Your task to perform on an android device: turn on priority inbox in the gmail app Image 0: 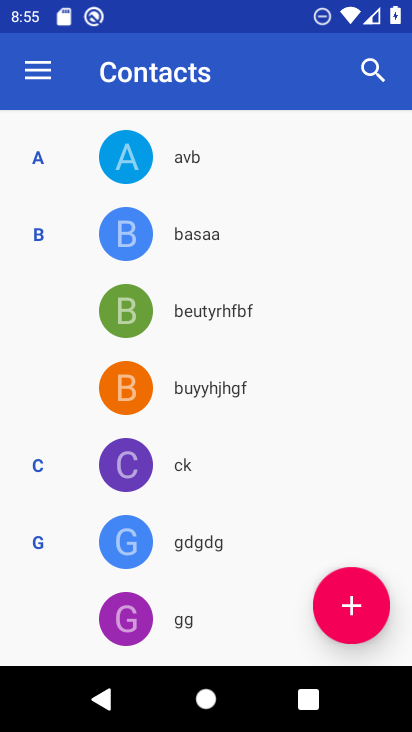
Step 0: press back button
Your task to perform on an android device: turn on priority inbox in the gmail app Image 1: 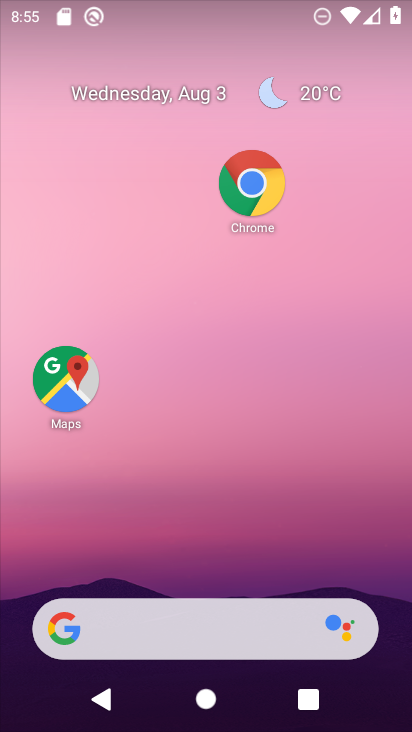
Step 1: drag from (185, 551) to (233, 178)
Your task to perform on an android device: turn on priority inbox in the gmail app Image 2: 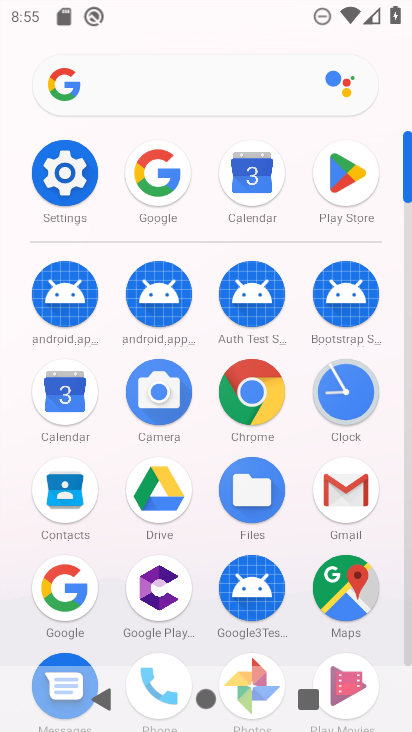
Step 2: click (339, 492)
Your task to perform on an android device: turn on priority inbox in the gmail app Image 3: 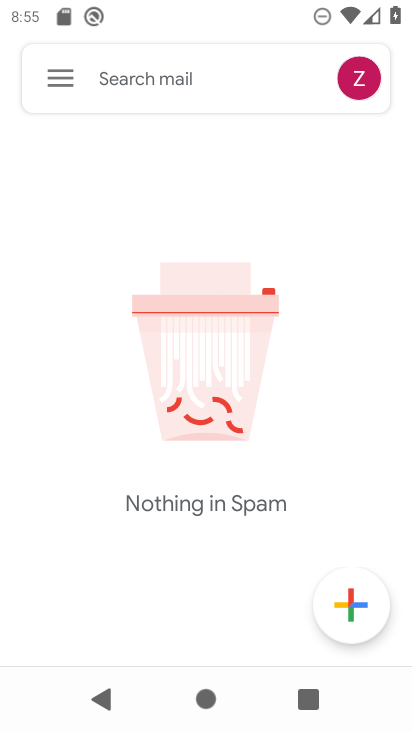
Step 3: click (60, 77)
Your task to perform on an android device: turn on priority inbox in the gmail app Image 4: 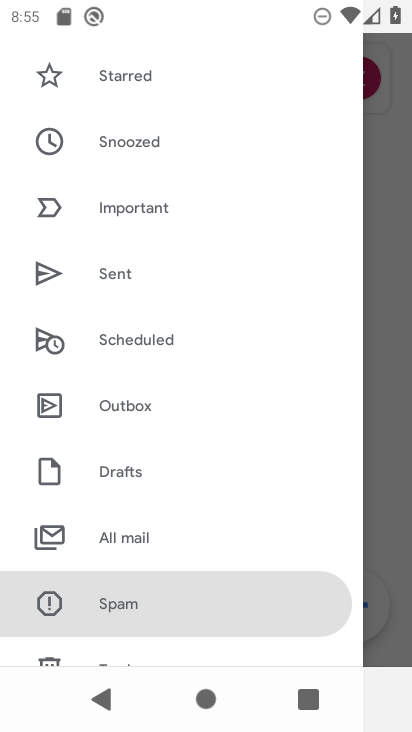
Step 4: drag from (151, 186) to (153, 501)
Your task to perform on an android device: turn on priority inbox in the gmail app Image 5: 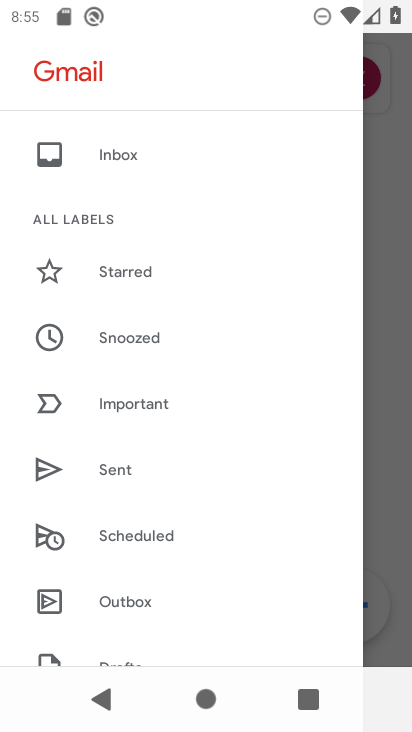
Step 5: drag from (144, 531) to (161, 30)
Your task to perform on an android device: turn on priority inbox in the gmail app Image 6: 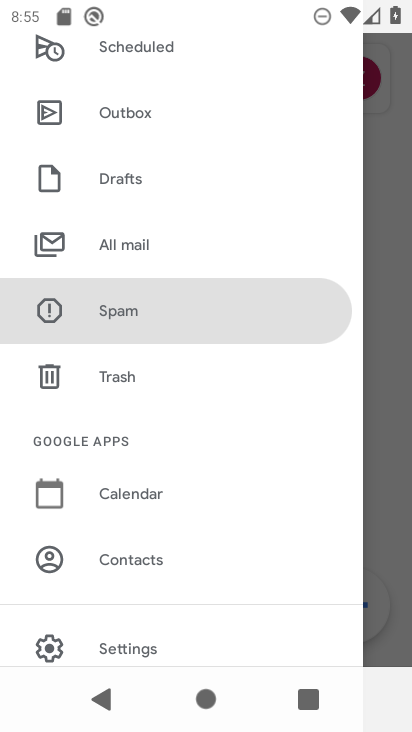
Step 6: click (136, 654)
Your task to perform on an android device: turn on priority inbox in the gmail app Image 7: 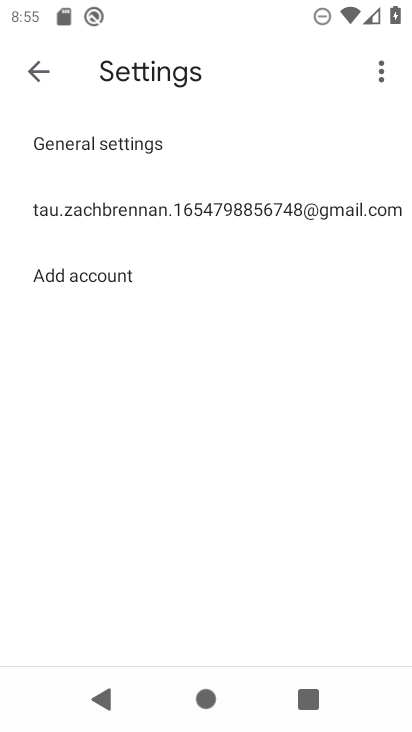
Step 7: click (133, 214)
Your task to perform on an android device: turn on priority inbox in the gmail app Image 8: 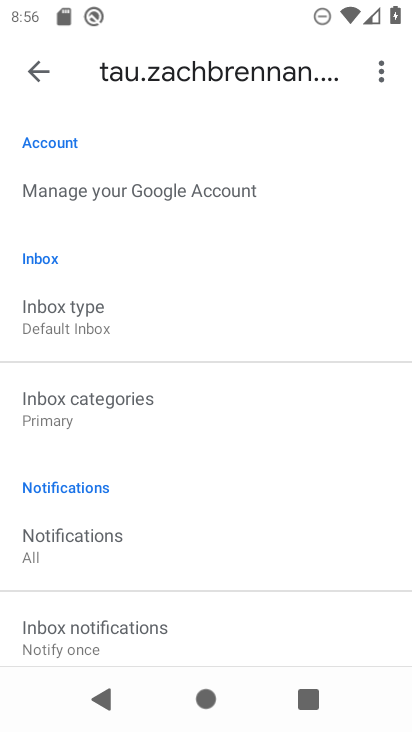
Step 8: click (84, 323)
Your task to perform on an android device: turn on priority inbox in the gmail app Image 9: 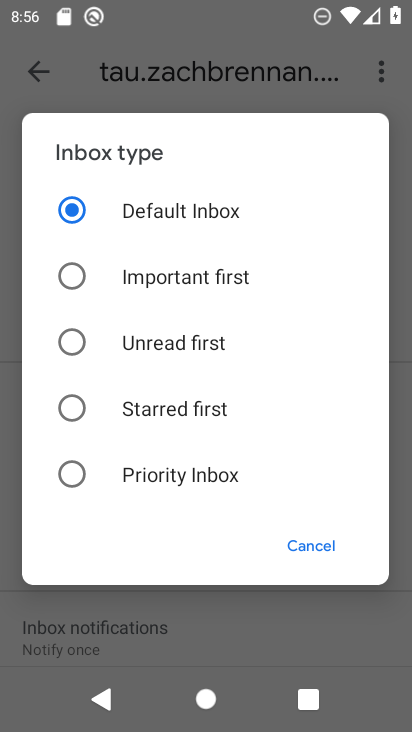
Step 9: click (72, 478)
Your task to perform on an android device: turn on priority inbox in the gmail app Image 10: 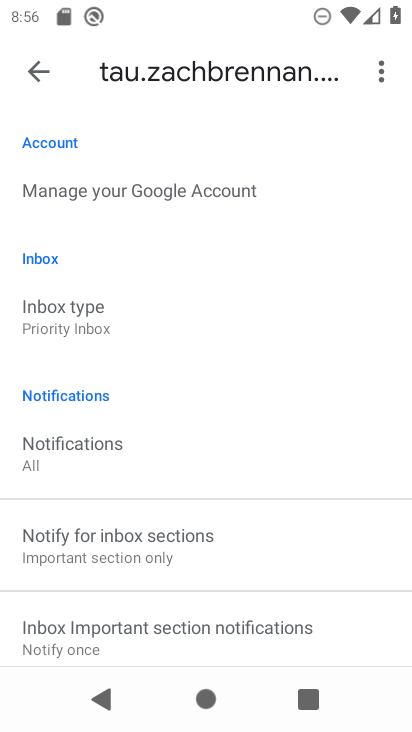
Step 10: task complete